Your task to perform on an android device: stop showing notifications on the lock screen Image 0: 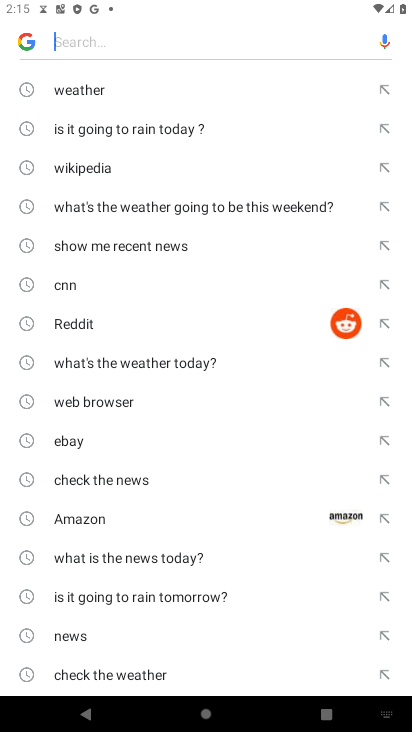
Step 0: press home button
Your task to perform on an android device: stop showing notifications on the lock screen Image 1: 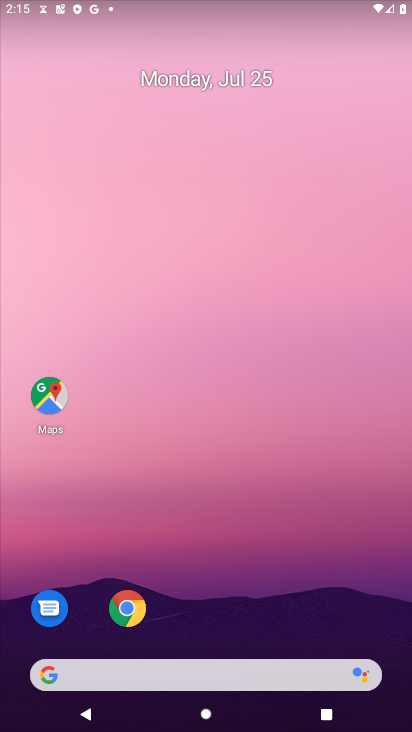
Step 1: drag from (178, 675) to (239, 0)
Your task to perform on an android device: stop showing notifications on the lock screen Image 2: 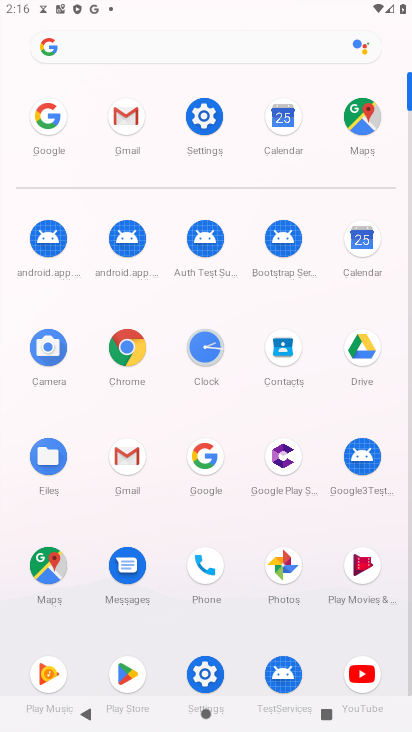
Step 2: click (205, 117)
Your task to perform on an android device: stop showing notifications on the lock screen Image 3: 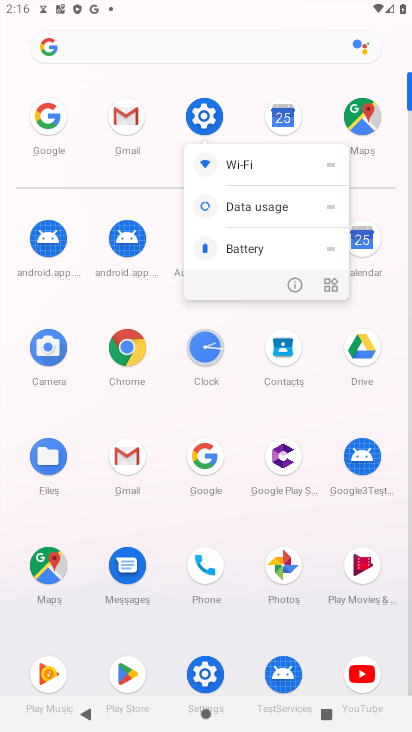
Step 3: click (205, 117)
Your task to perform on an android device: stop showing notifications on the lock screen Image 4: 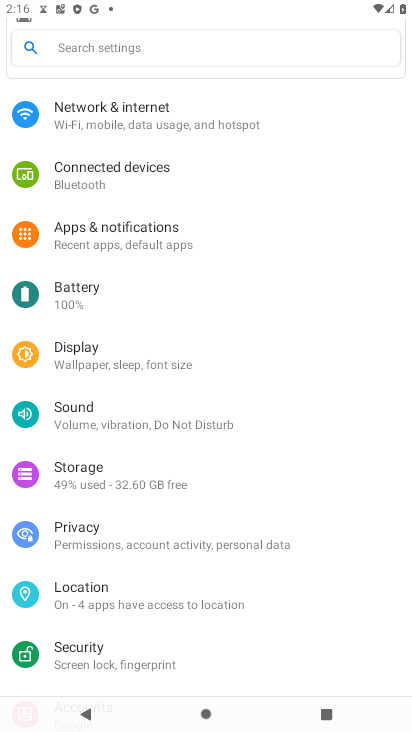
Step 4: click (110, 230)
Your task to perform on an android device: stop showing notifications on the lock screen Image 5: 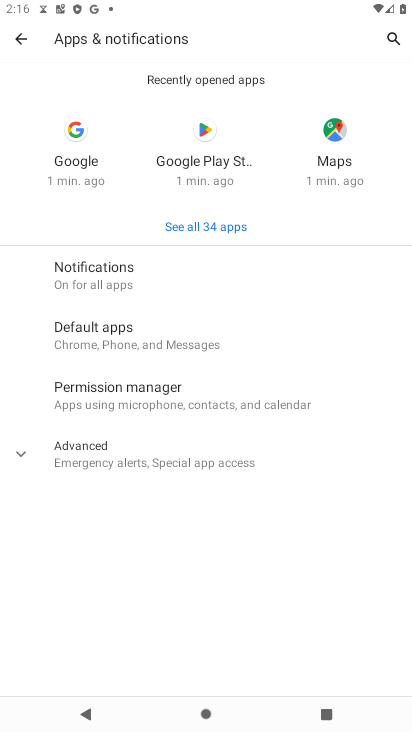
Step 5: click (92, 274)
Your task to perform on an android device: stop showing notifications on the lock screen Image 6: 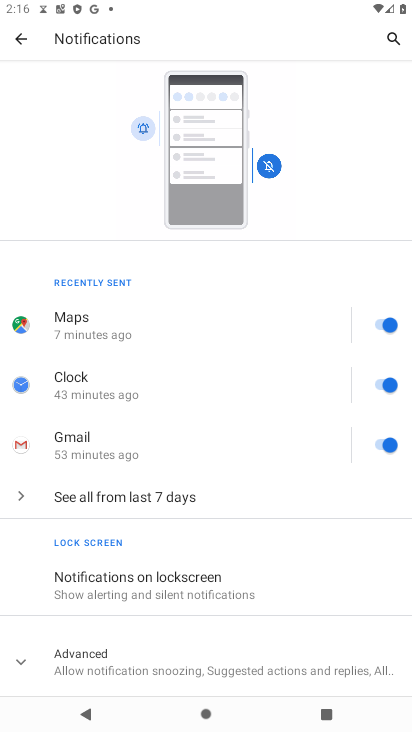
Step 6: click (73, 580)
Your task to perform on an android device: stop showing notifications on the lock screen Image 7: 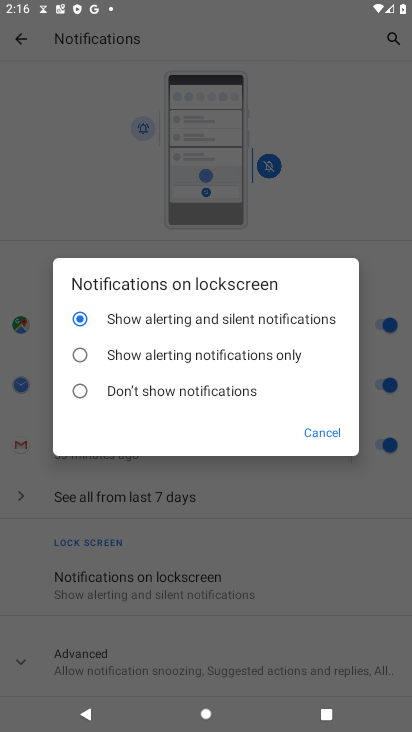
Step 7: click (80, 388)
Your task to perform on an android device: stop showing notifications on the lock screen Image 8: 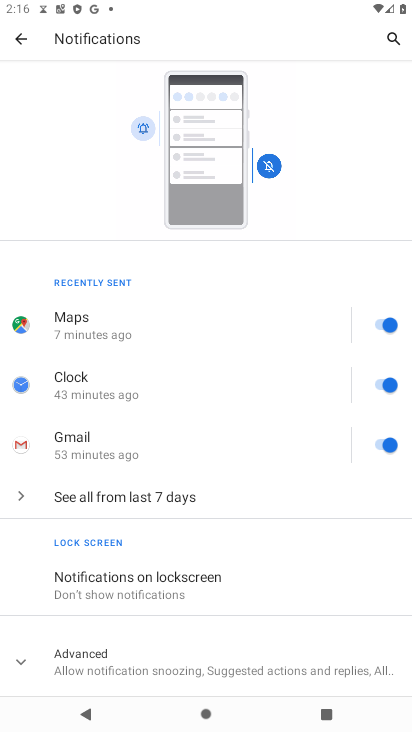
Step 8: task complete